Your task to perform on an android device: open app "Microsoft Outlook" Image 0: 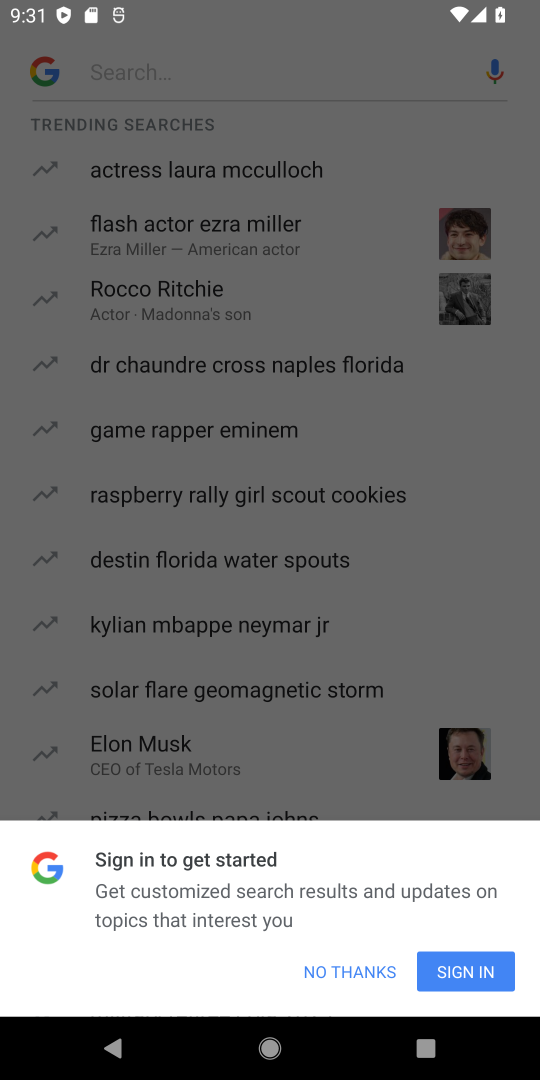
Step 0: press home button
Your task to perform on an android device: open app "Microsoft Outlook" Image 1: 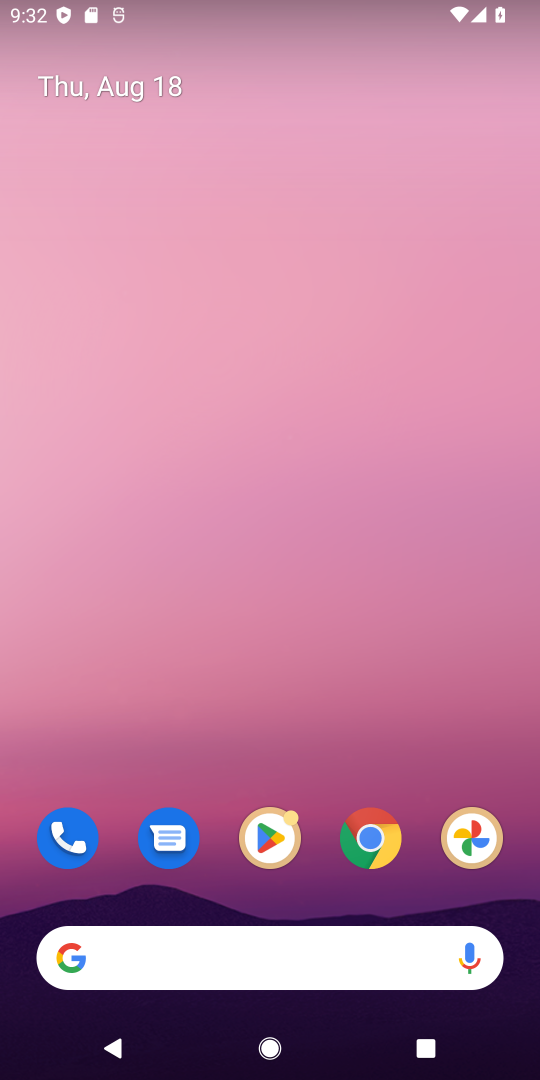
Step 1: drag from (315, 912) to (452, 179)
Your task to perform on an android device: open app "Microsoft Outlook" Image 2: 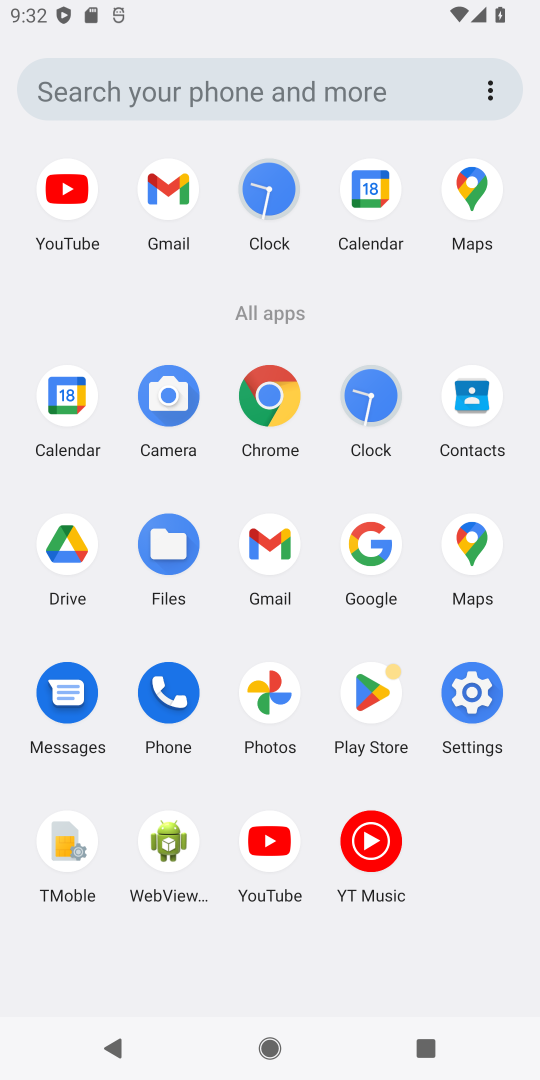
Step 2: click (459, 500)
Your task to perform on an android device: open app "Microsoft Outlook" Image 3: 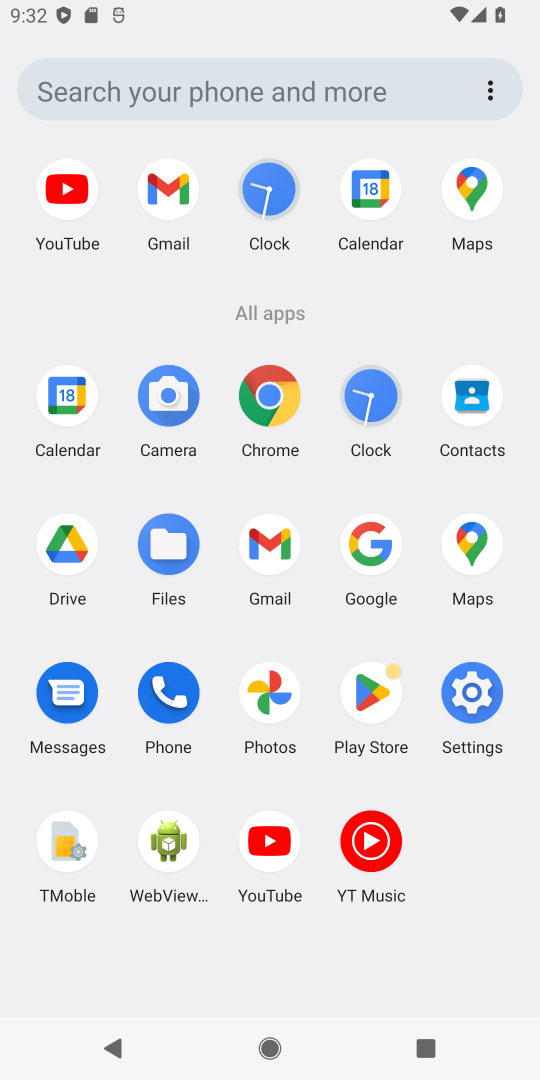
Step 3: click (474, 544)
Your task to perform on an android device: open app "Microsoft Outlook" Image 4: 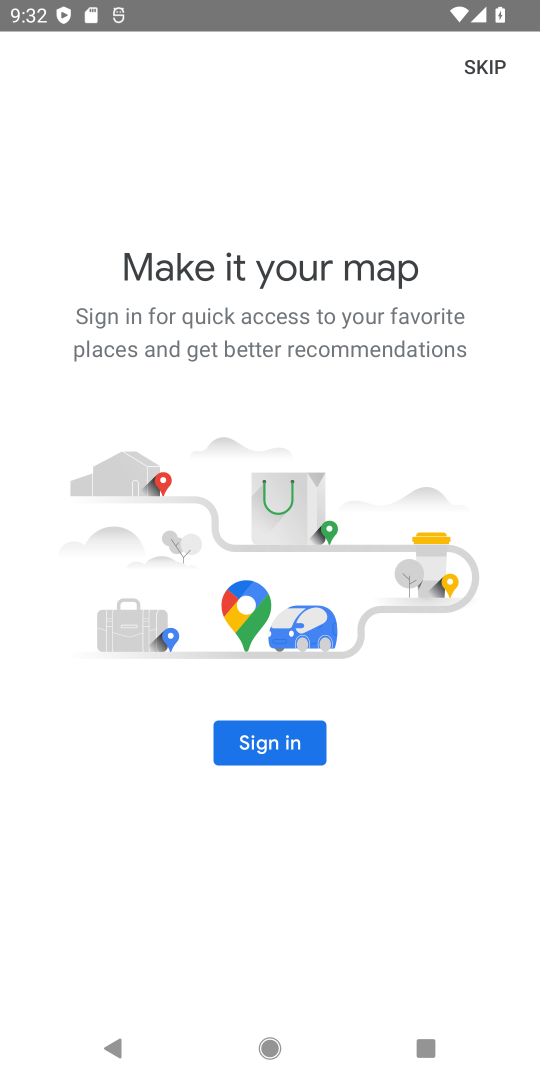
Step 4: click (305, 759)
Your task to perform on an android device: open app "Microsoft Outlook" Image 5: 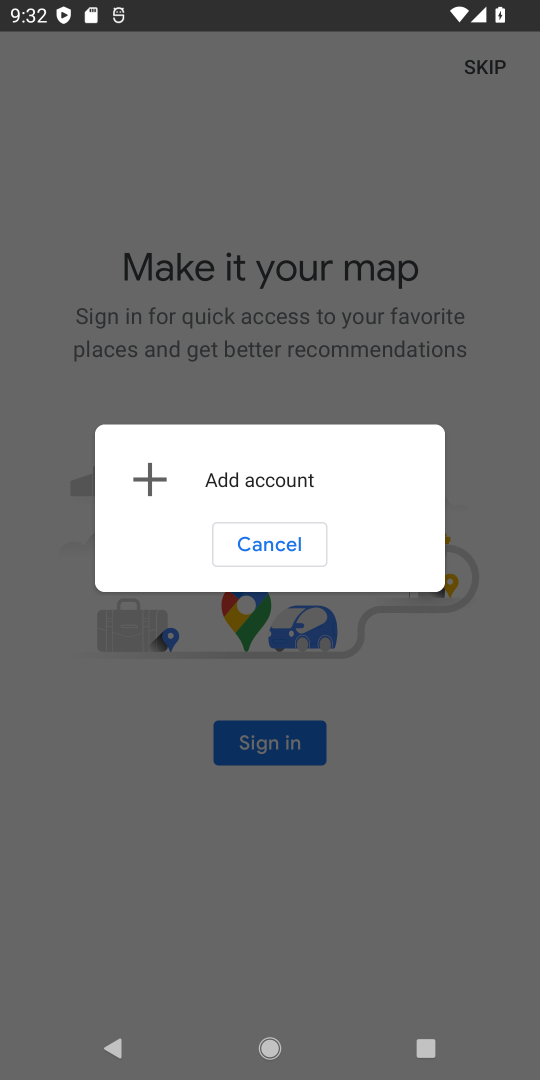
Step 5: task complete